Your task to perform on an android device: turn on translation in the chrome app Image 0: 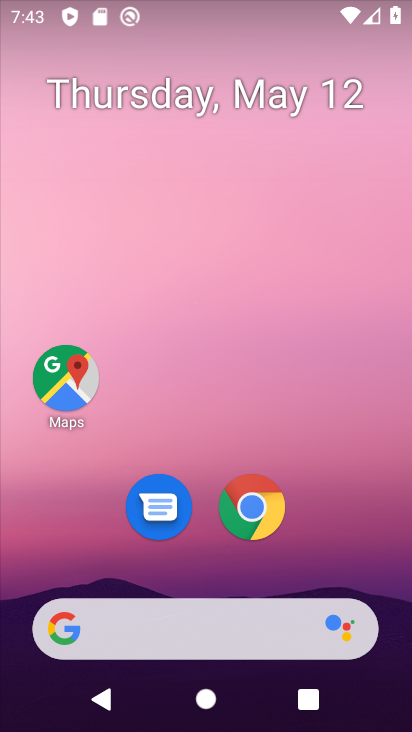
Step 0: click (253, 541)
Your task to perform on an android device: turn on translation in the chrome app Image 1: 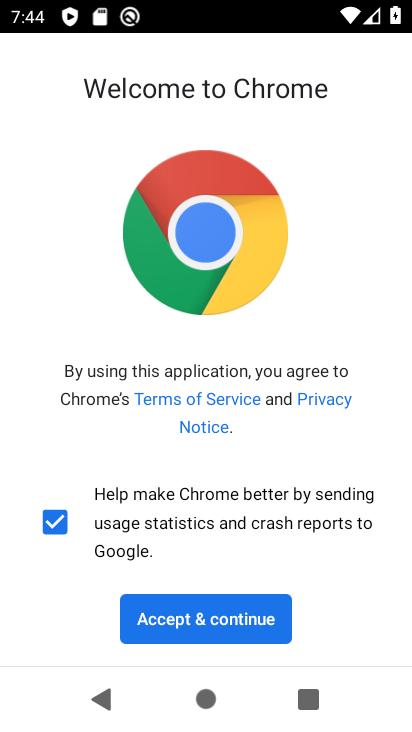
Step 1: click (214, 598)
Your task to perform on an android device: turn on translation in the chrome app Image 2: 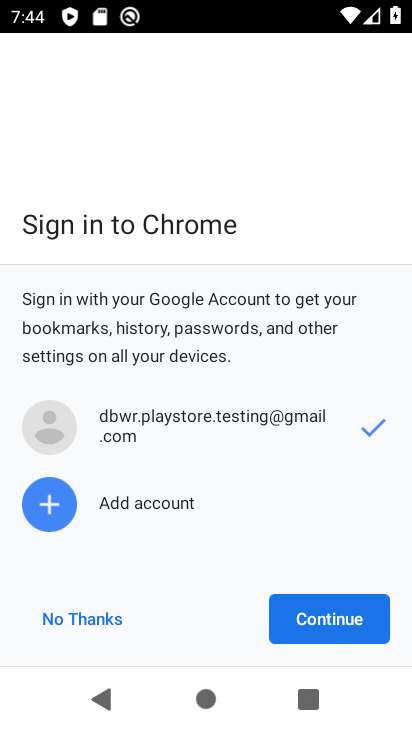
Step 2: click (306, 619)
Your task to perform on an android device: turn on translation in the chrome app Image 3: 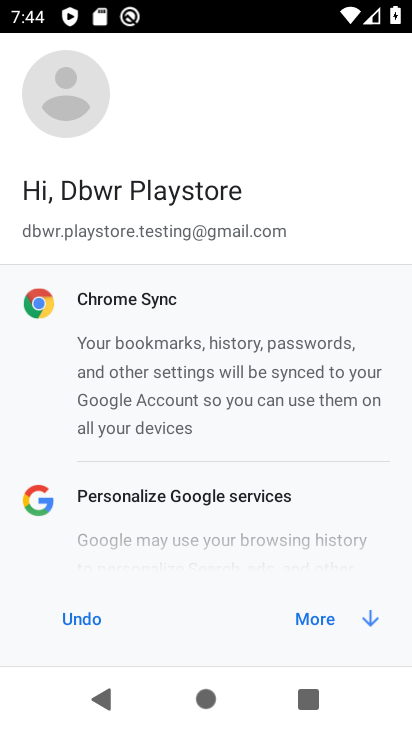
Step 3: click (308, 619)
Your task to perform on an android device: turn on translation in the chrome app Image 4: 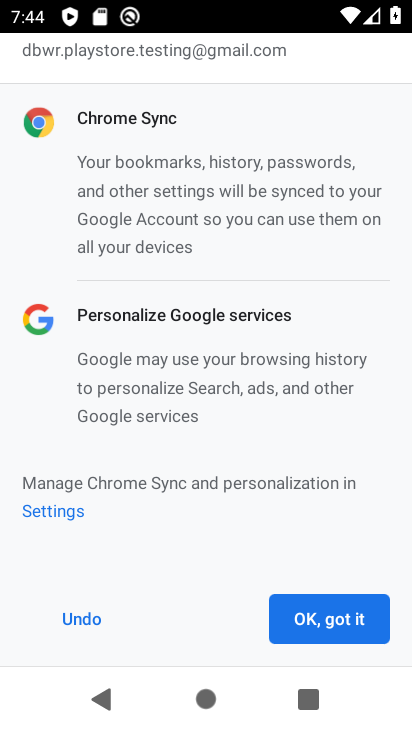
Step 4: click (309, 622)
Your task to perform on an android device: turn on translation in the chrome app Image 5: 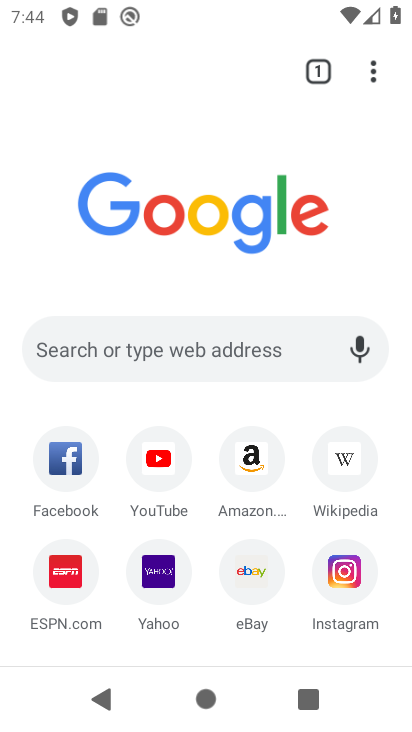
Step 5: drag from (372, 83) to (151, 501)
Your task to perform on an android device: turn on translation in the chrome app Image 6: 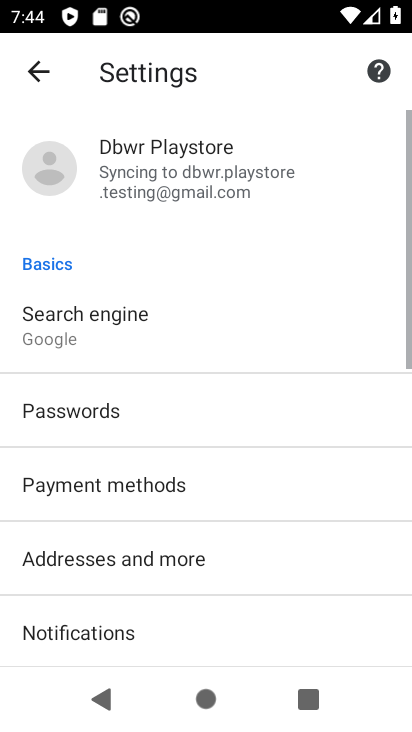
Step 6: drag from (182, 557) to (276, 105)
Your task to perform on an android device: turn on translation in the chrome app Image 7: 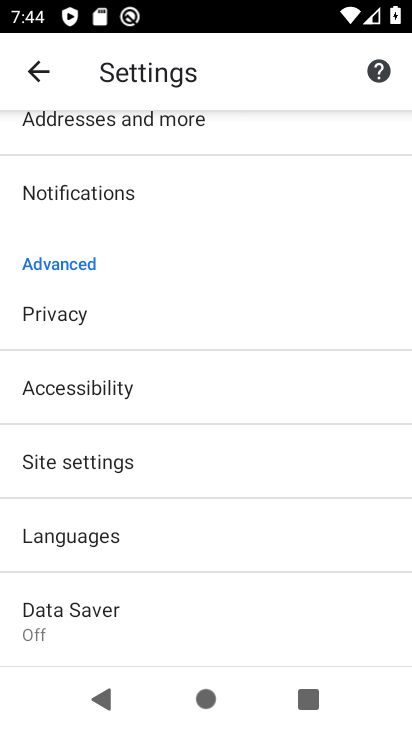
Step 7: click (96, 547)
Your task to perform on an android device: turn on translation in the chrome app Image 8: 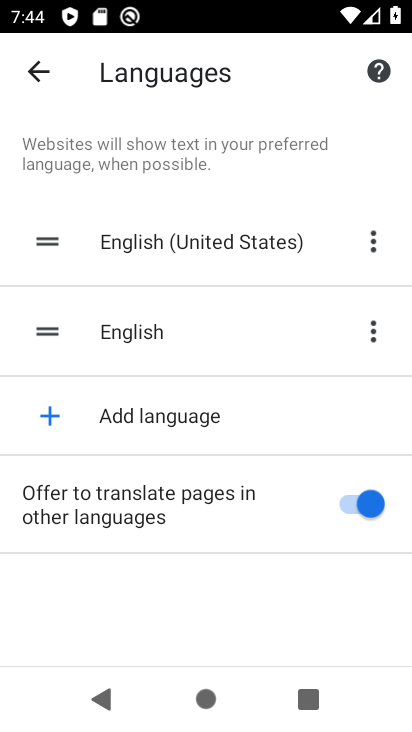
Step 8: task complete